Your task to perform on an android device: add a label to a message in the gmail app Image 0: 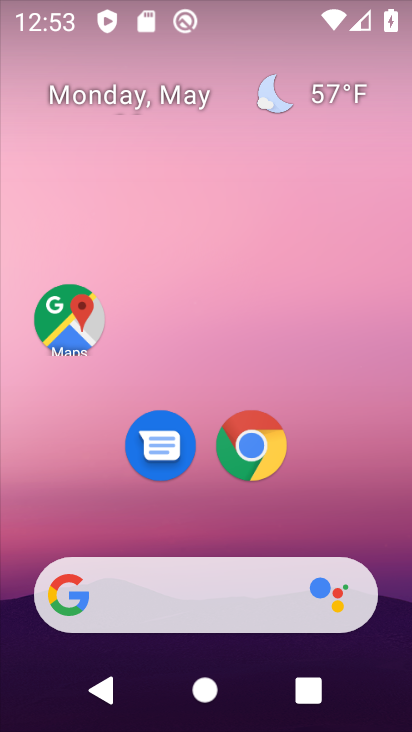
Step 0: drag from (390, 581) to (312, 127)
Your task to perform on an android device: add a label to a message in the gmail app Image 1: 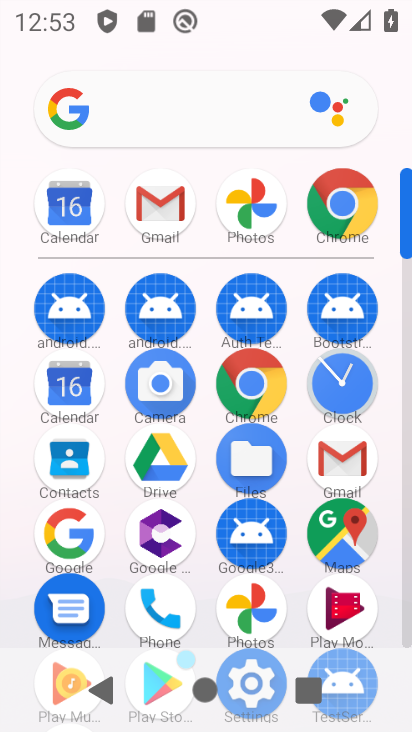
Step 1: click (340, 460)
Your task to perform on an android device: add a label to a message in the gmail app Image 2: 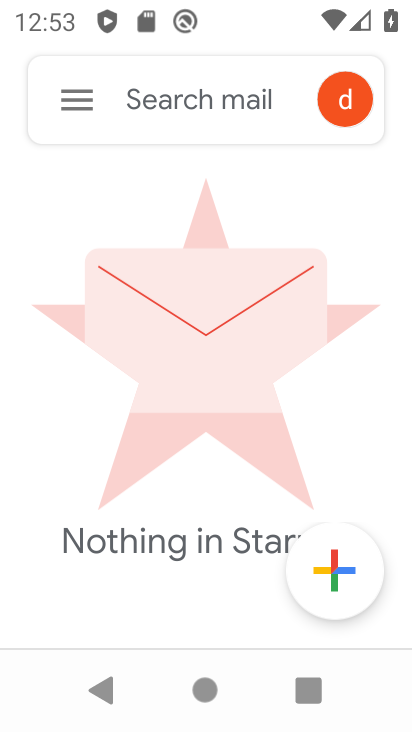
Step 2: task complete